Your task to perform on an android device: Show me productivity apps on the Play Store Image 0: 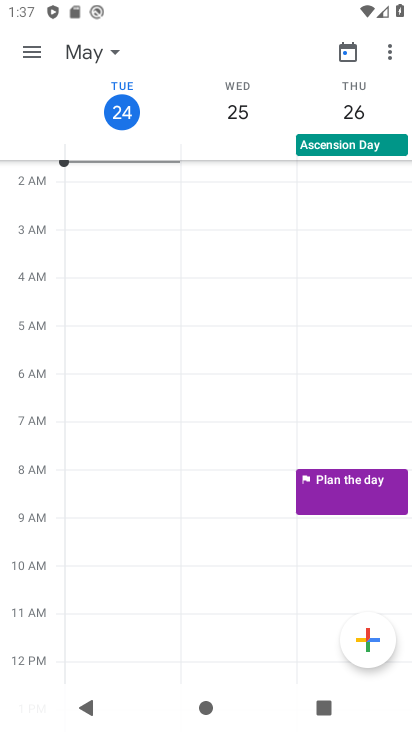
Step 0: press home button
Your task to perform on an android device: Show me productivity apps on the Play Store Image 1: 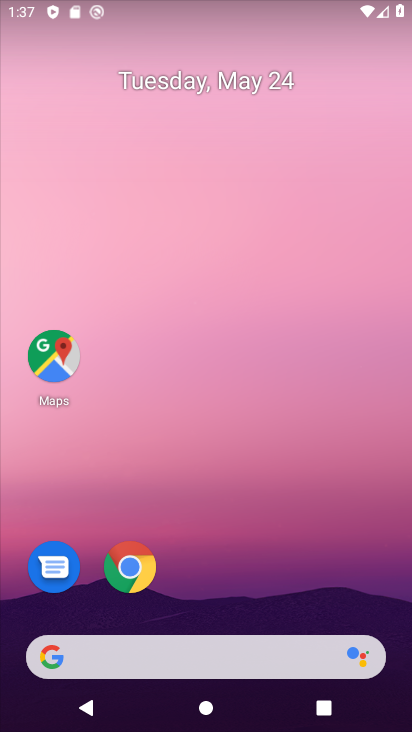
Step 1: drag from (216, 585) to (230, 475)
Your task to perform on an android device: Show me productivity apps on the Play Store Image 2: 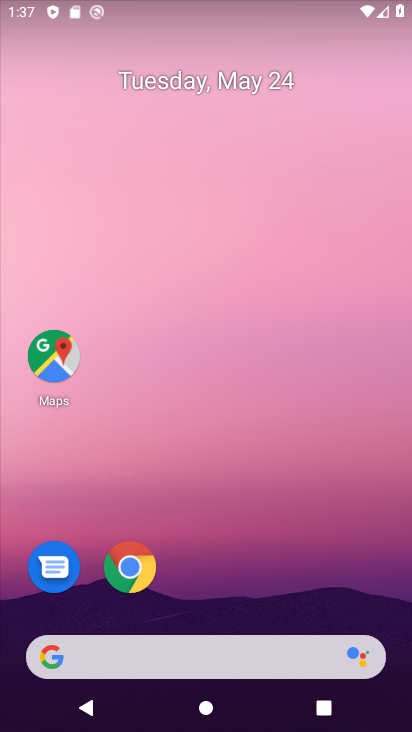
Step 2: drag from (204, 612) to (217, 13)
Your task to perform on an android device: Show me productivity apps on the Play Store Image 3: 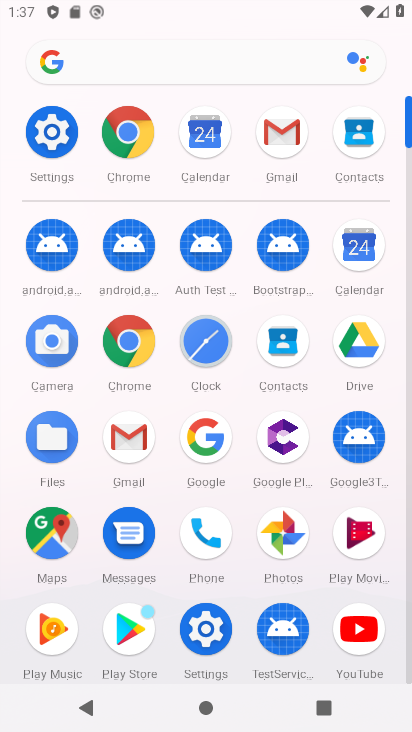
Step 3: click (119, 634)
Your task to perform on an android device: Show me productivity apps on the Play Store Image 4: 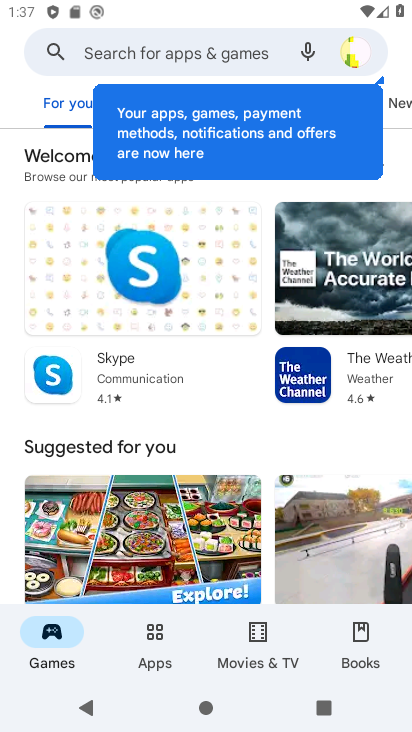
Step 4: click (145, 651)
Your task to perform on an android device: Show me productivity apps on the Play Store Image 5: 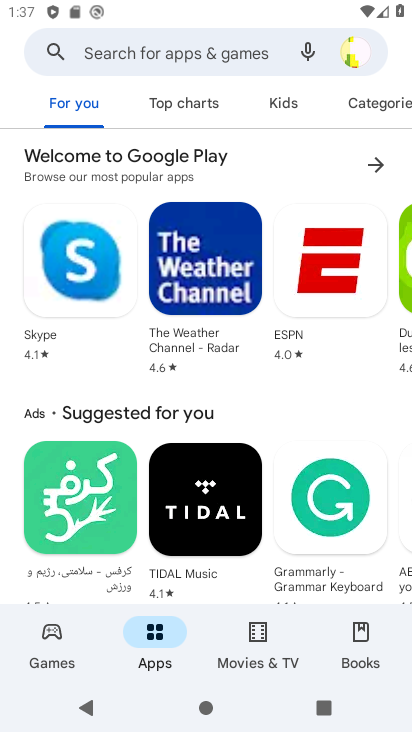
Step 5: click (366, 103)
Your task to perform on an android device: Show me productivity apps on the Play Store Image 6: 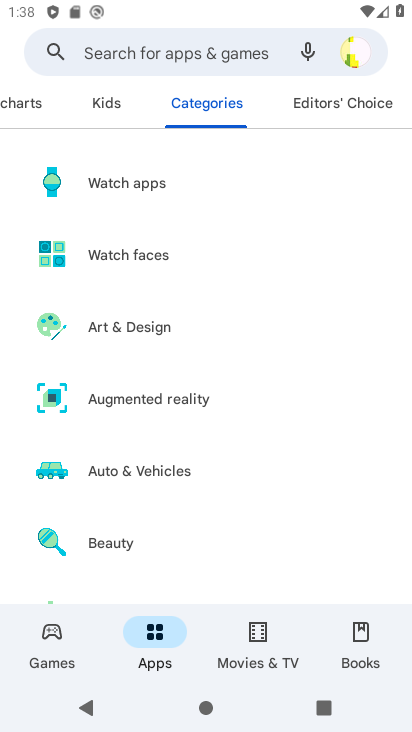
Step 6: drag from (157, 489) to (183, 303)
Your task to perform on an android device: Show me productivity apps on the Play Store Image 7: 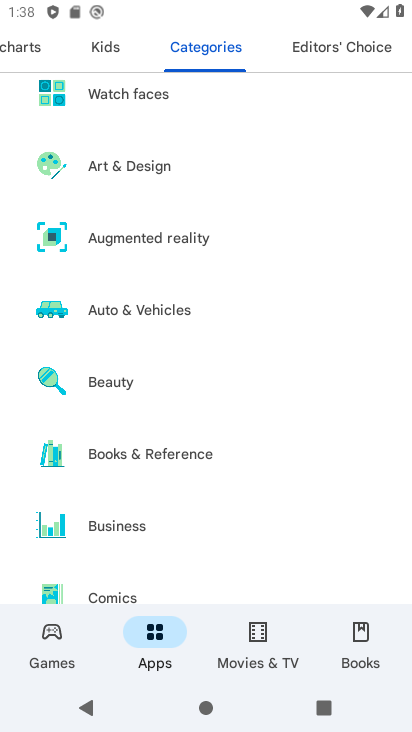
Step 7: drag from (128, 546) to (175, 285)
Your task to perform on an android device: Show me productivity apps on the Play Store Image 8: 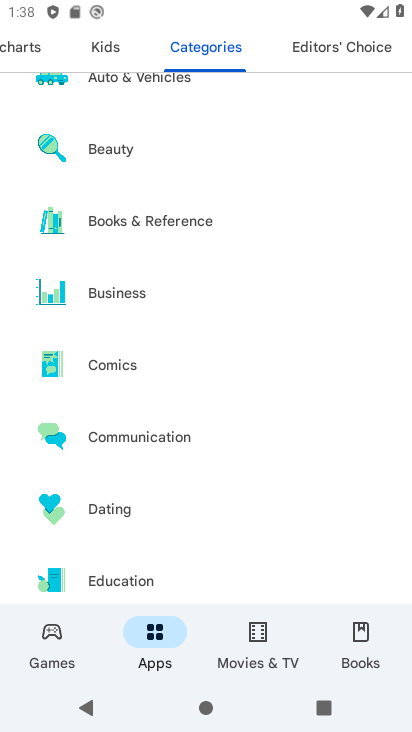
Step 8: drag from (166, 490) to (188, 173)
Your task to perform on an android device: Show me productivity apps on the Play Store Image 9: 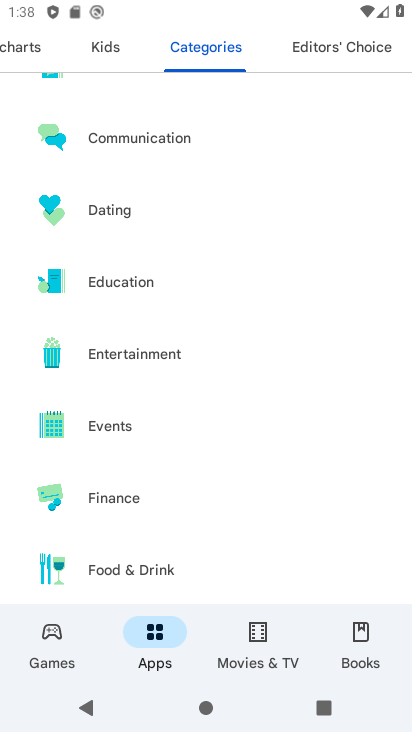
Step 9: drag from (149, 497) to (167, 263)
Your task to perform on an android device: Show me productivity apps on the Play Store Image 10: 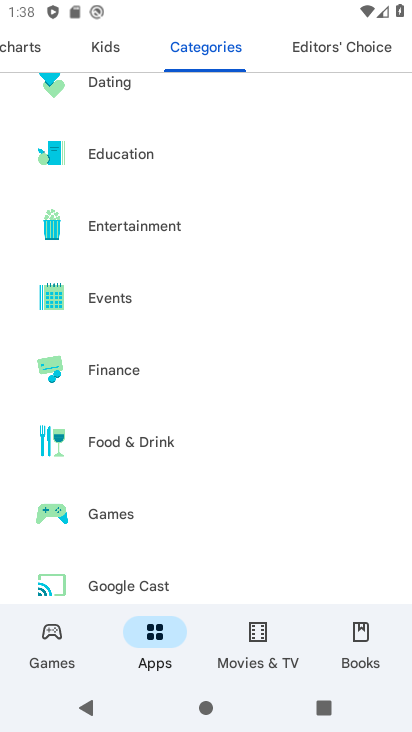
Step 10: drag from (145, 416) to (202, 80)
Your task to perform on an android device: Show me productivity apps on the Play Store Image 11: 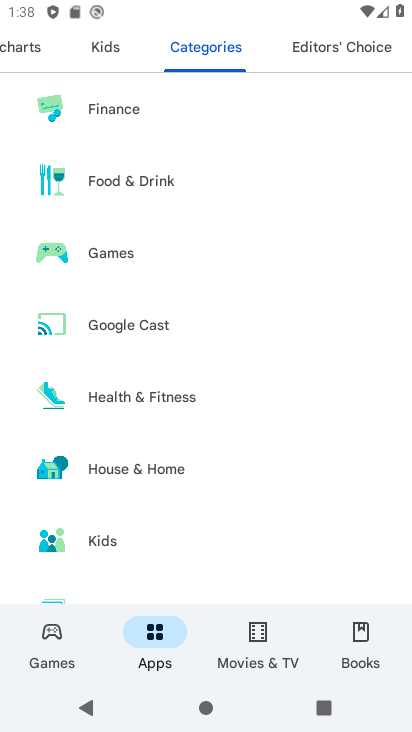
Step 11: drag from (142, 480) to (187, 88)
Your task to perform on an android device: Show me productivity apps on the Play Store Image 12: 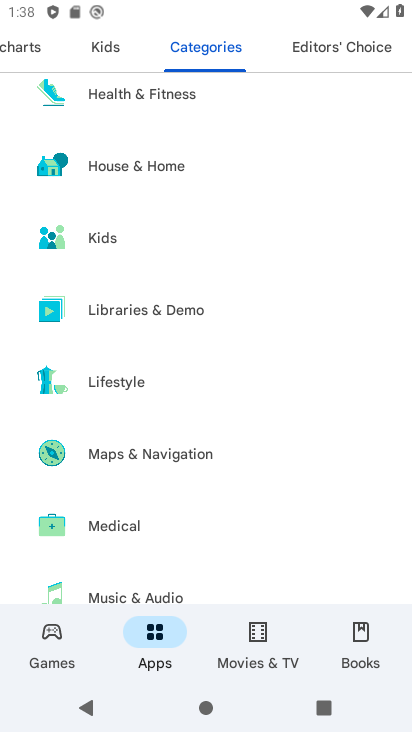
Step 12: drag from (155, 498) to (218, 104)
Your task to perform on an android device: Show me productivity apps on the Play Store Image 13: 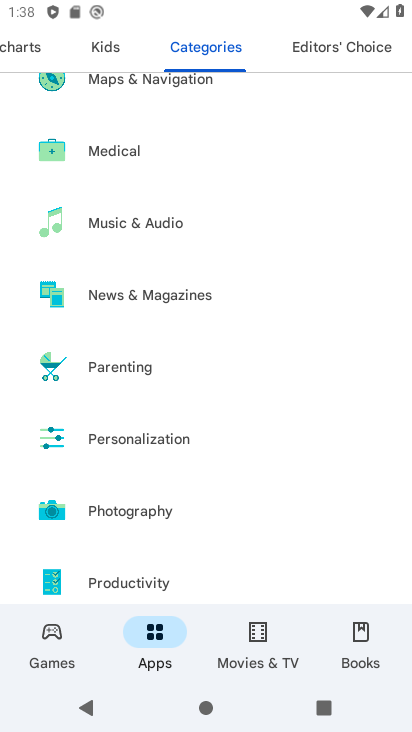
Step 13: drag from (147, 568) to (176, 352)
Your task to perform on an android device: Show me productivity apps on the Play Store Image 14: 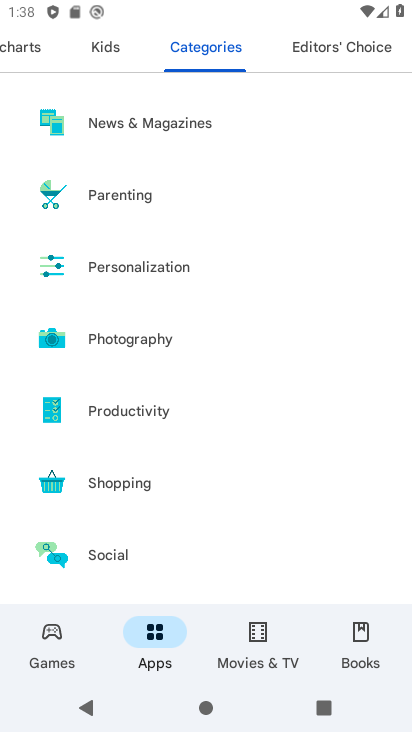
Step 14: click (139, 410)
Your task to perform on an android device: Show me productivity apps on the Play Store Image 15: 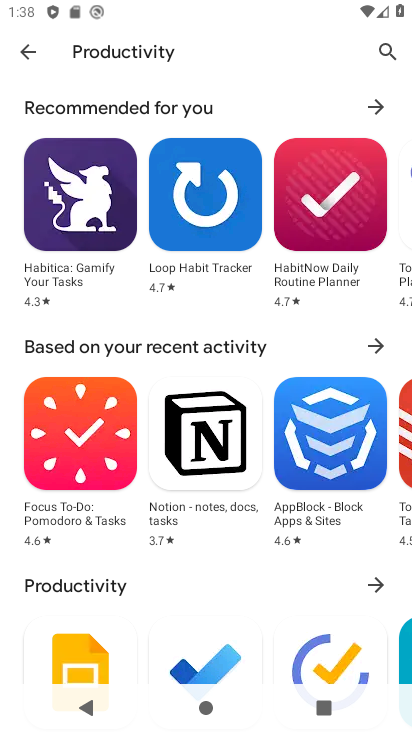
Step 15: task complete